Your task to perform on an android device: Open Wikipedia Image 0: 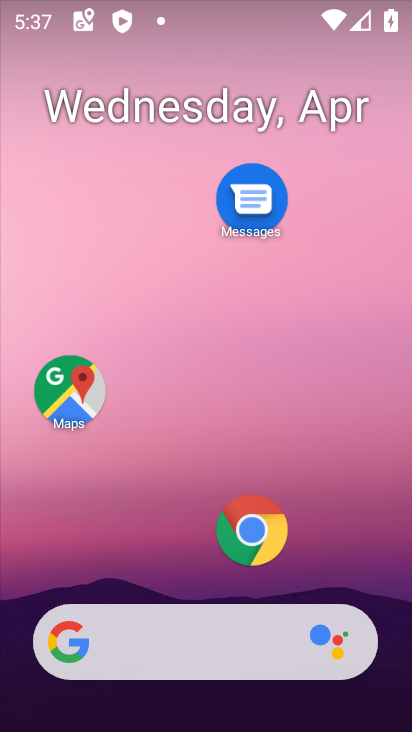
Step 0: click (256, 534)
Your task to perform on an android device: Open Wikipedia Image 1: 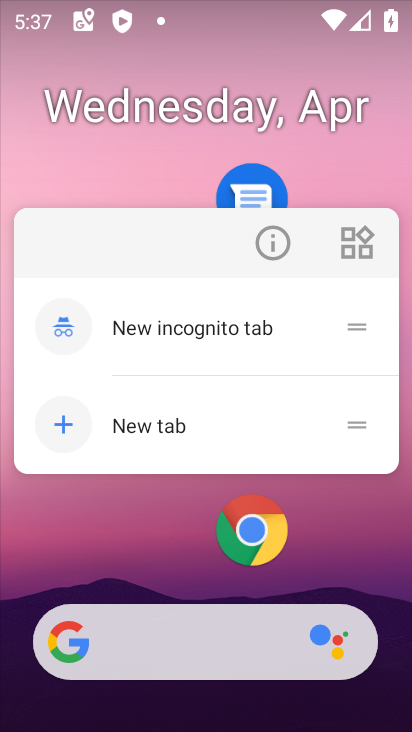
Step 1: click (249, 523)
Your task to perform on an android device: Open Wikipedia Image 2: 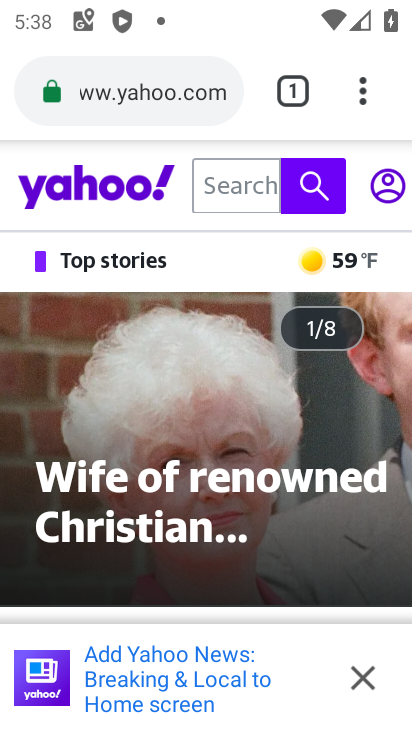
Step 2: click (182, 82)
Your task to perform on an android device: Open Wikipedia Image 3: 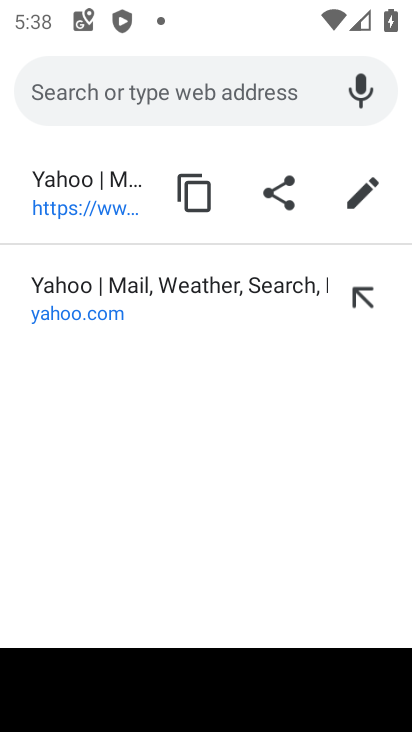
Step 3: type "Wikipedia"
Your task to perform on an android device: Open Wikipedia Image 4: 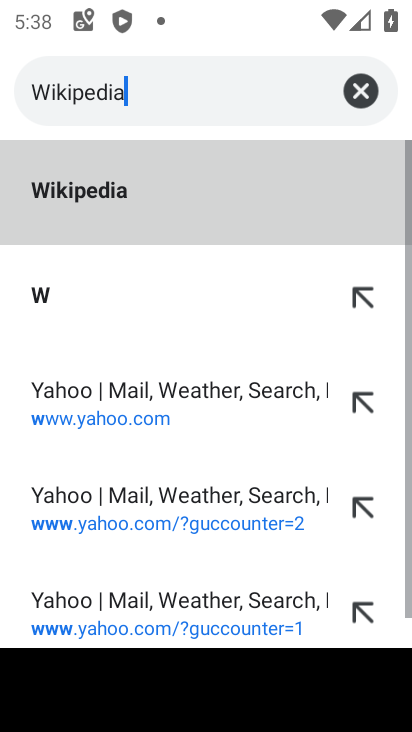
Step 4: type ""
Your task to perform on an android device: Open Wikipedia Image 5: 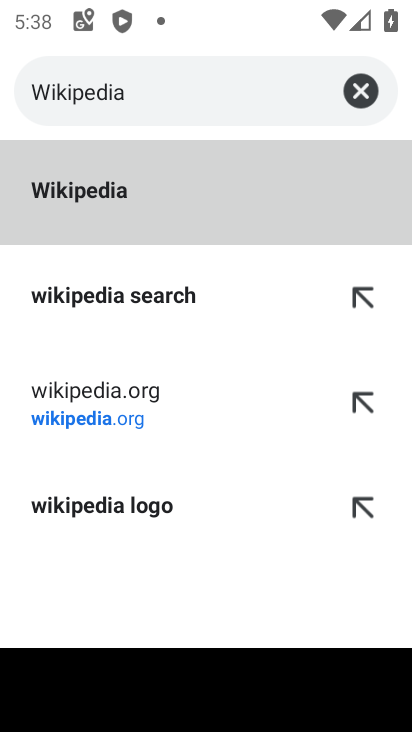
Step 5: click (107, 287)
Your task to perform on an android device: Open Wikipedia Image 6: 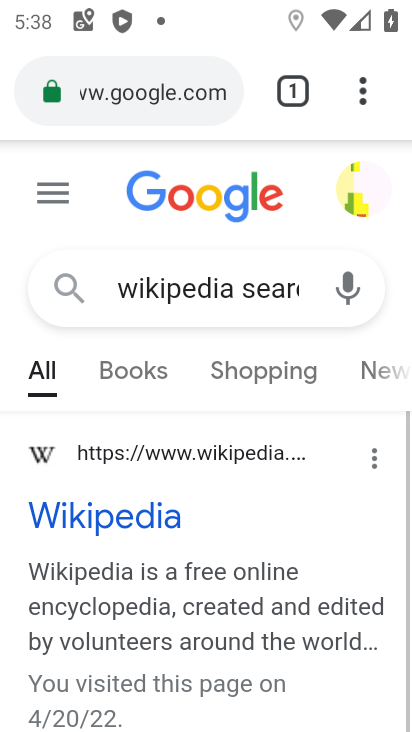
Step 6: drag from (205, 510) to (240, 383)
Your task to perform on an android device: Open Wikipedia Image 7: 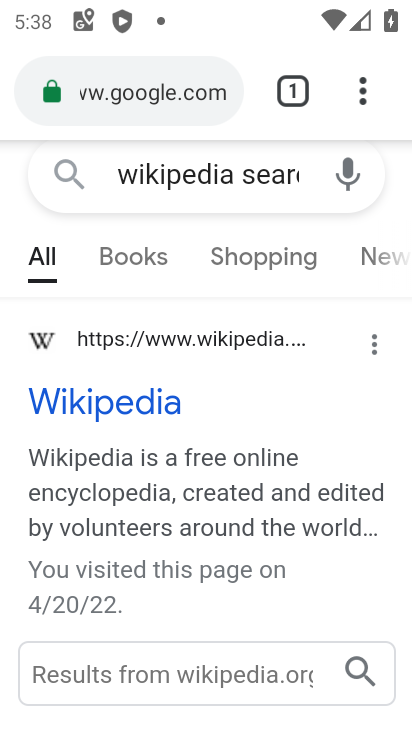
Step 7: click (162, 412)
Your task to perform on an android device: Open Wikipedia Image 8: 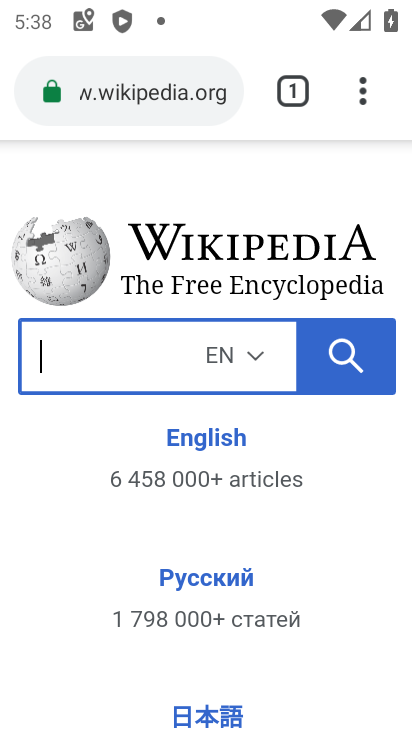
Step 8: task complete